Your task to perform on an android device: Go to Wikipedia Image 0: 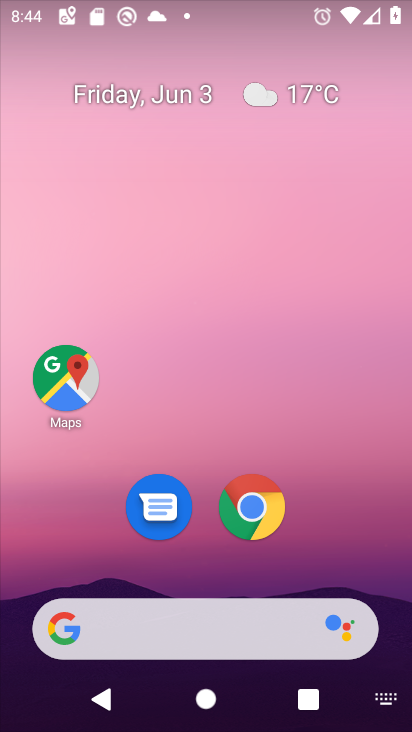
Step 0: press home button
Your task to perform on an android device: Go to Wikipedia Image 1: 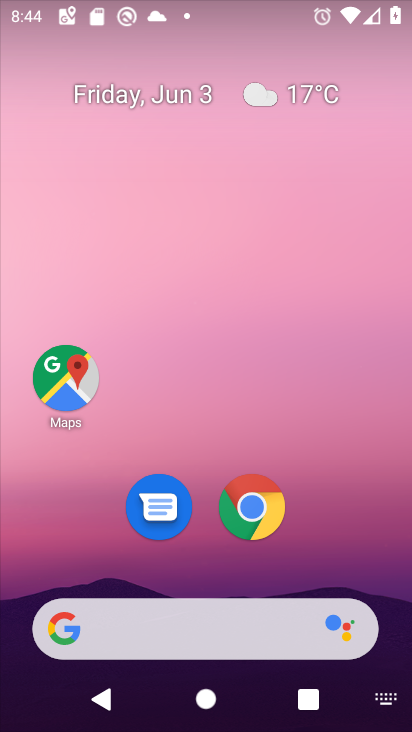
Step 1: click (271, 500)
Your task to perform on an android device: Go to Wikipedia Image 2: 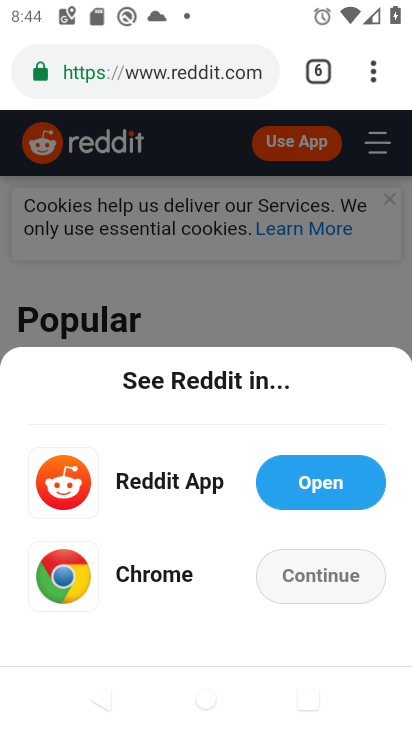
Step 2: click (309, 69)
Your task to perform on an android device: Go to Wikipedia Image 3: 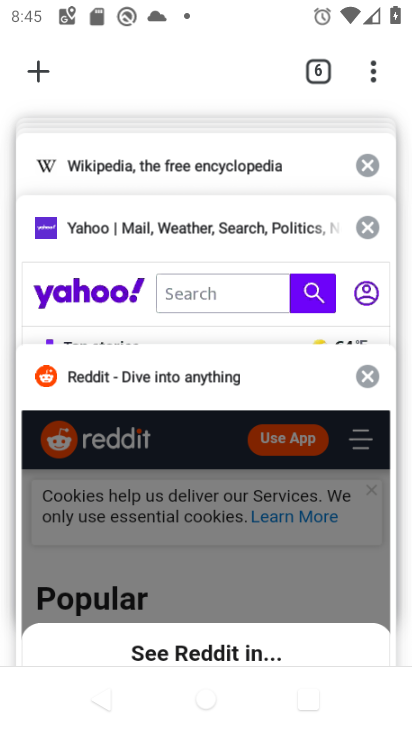
Step 3: click (43, 67)
Your task to perform on an android device: Go to Wikipedia Image 4: 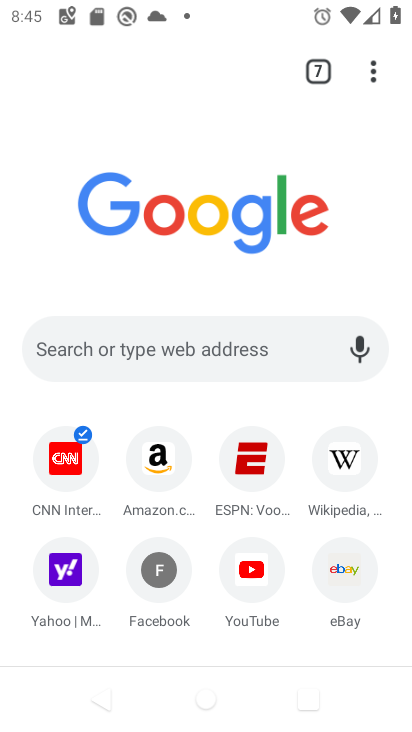
Step 4: click (364, 462)
Your task to perform on an android device: Go to Wikipedia Image 5: 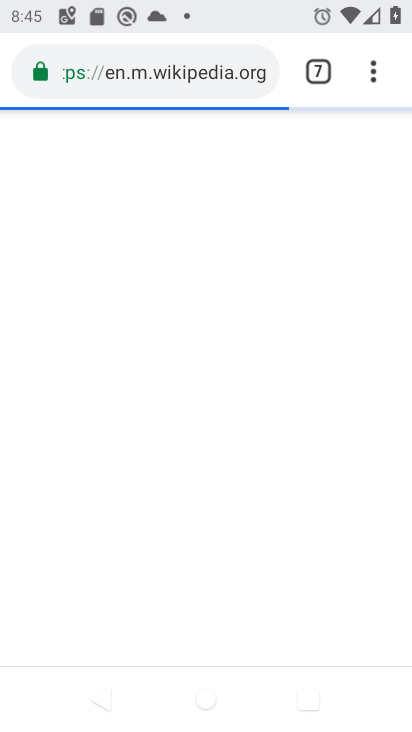
Step 5: task complete